Your task to perform on an android device: Open settings on Google Maps Image 0: 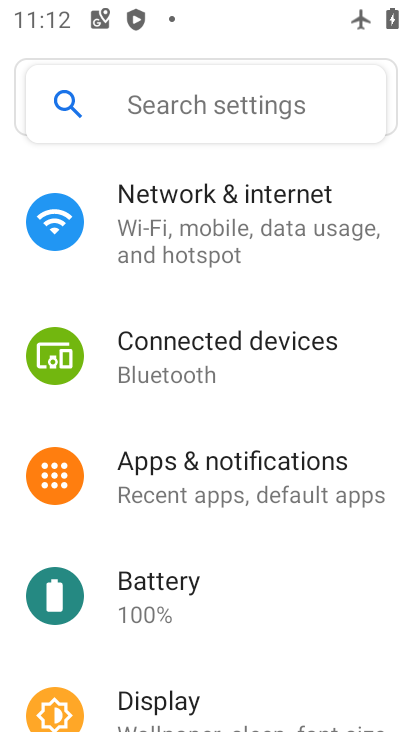
Step 0: press home button
Your task to perform on an android device: Open settings on Google Maps Image 1: 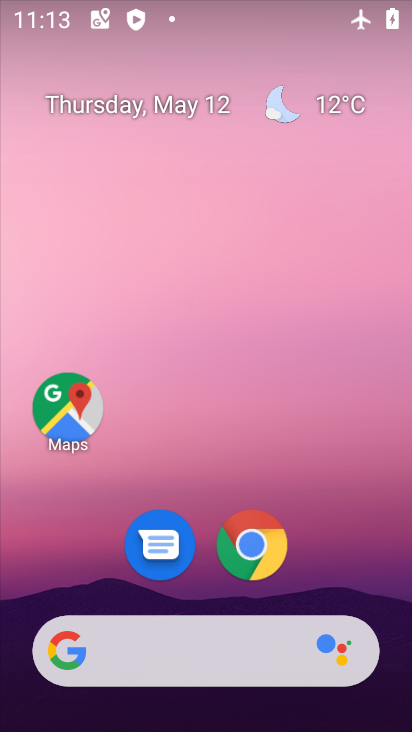
Step 1: click (72, 398)
Your task to perform on an android device: Open settings on Google Maps Image 2: 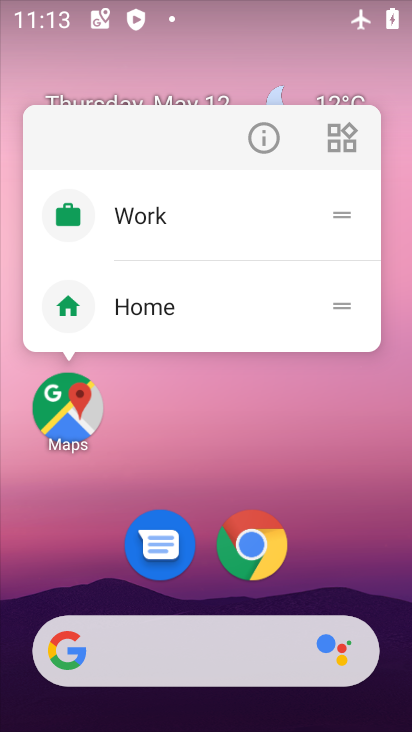
Step 2: click (68, 405)
Your task to perform on an android device: Open settings on Google Maps Image 3: 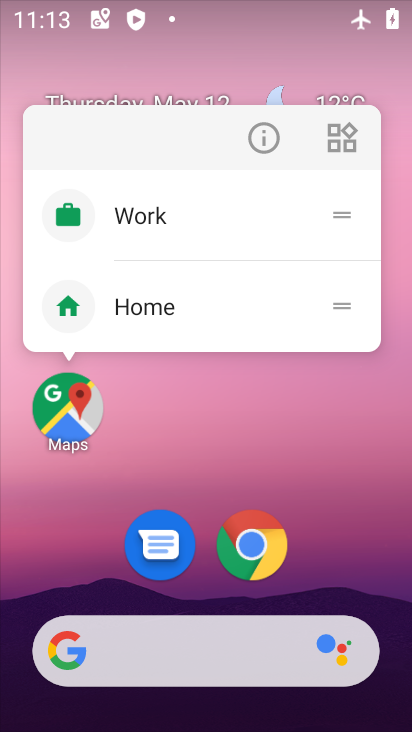
Step 3: click (61, 411)
Your task to perform on an android device: Open settings on Google Maps Image 4: 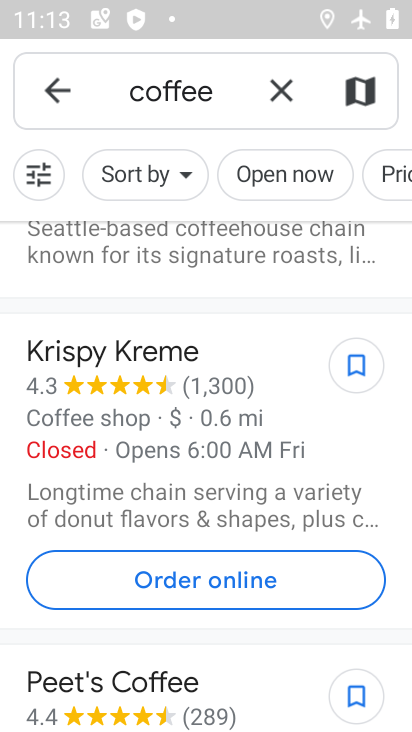
Step 4: click (278, 96)
Your task to perform on an android device: Open settings on Google Maps Image 5: 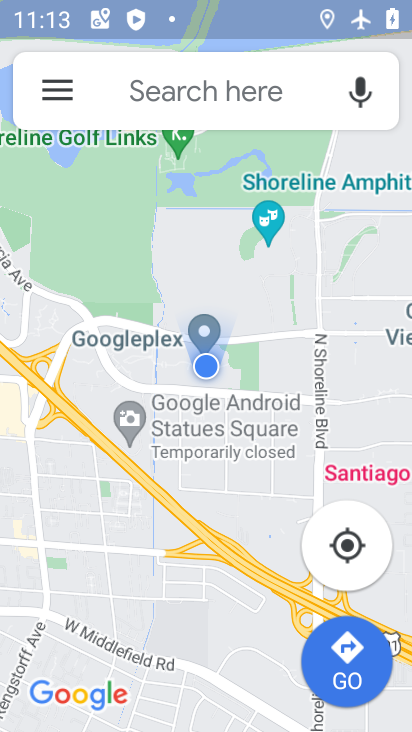
Step 5: click (55, 82)
Your task to perform on an android device: Open settings on Google Maps Image 6: 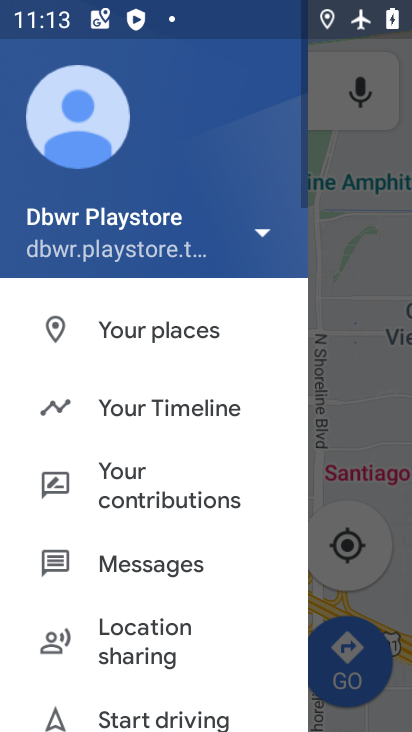
Step 6: drag from (151, 659) to (179, 145)
Your task to perform on an android device: Open settings on Google Maps Image 7: 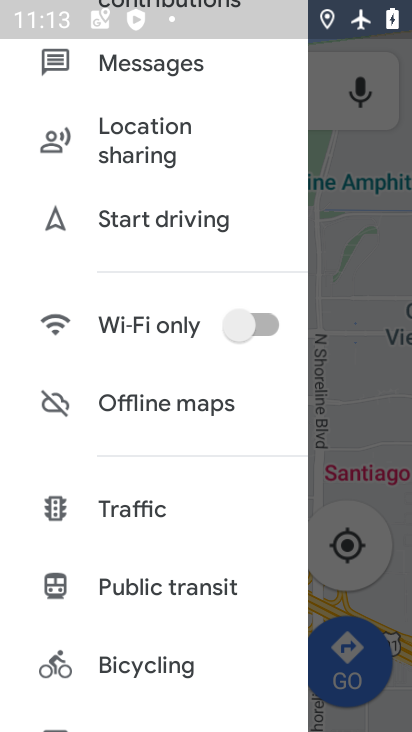
Step 7: drag from (141, 648) to (166, 52)
Your task to perform on an android device: Open settings on Google Maps Image 8: 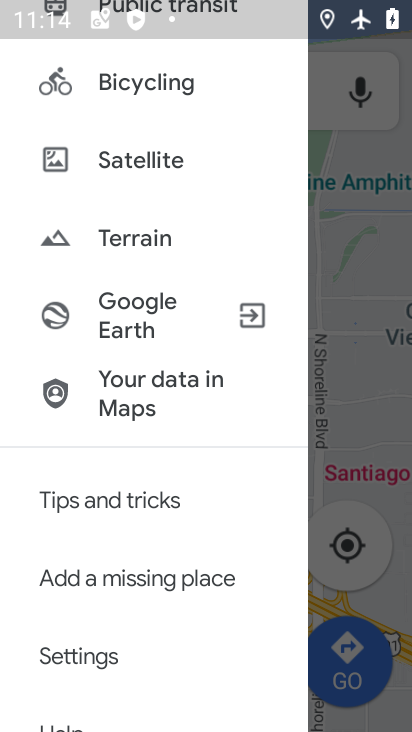
Step 8: drag from (128, 678) to (131, 63)
Your task to perform on an android device: Open settings on Google Maps Image 9: 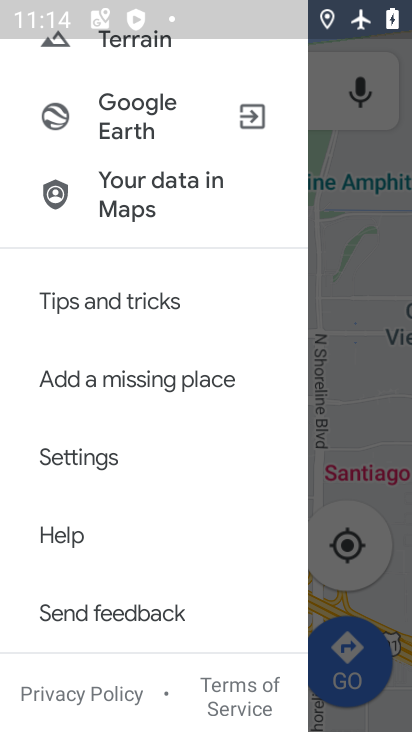
Step 9: click (136, 448)
Your task to perform on an android device: Open settings on Google Maps Image 10: 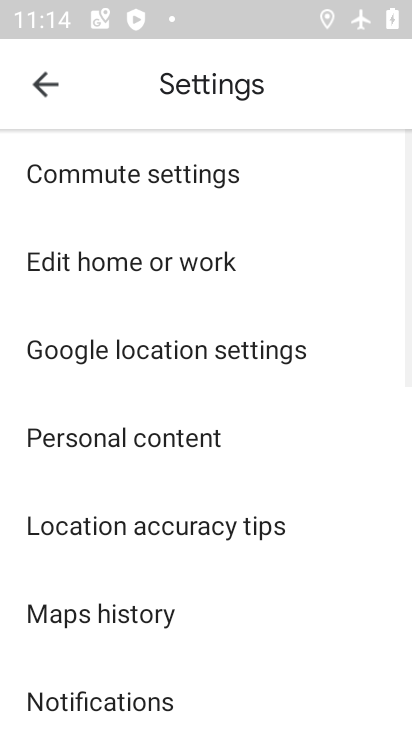
Step 10: task complete